Your task to perform on an android device: show emergency info Image 0: 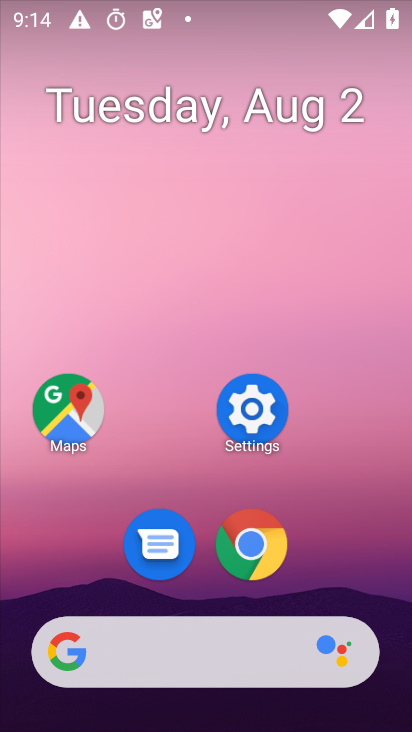
Step 0: drag from (185, 665) to (217, 600)
Your task to perform on an android device: show emergency info Image 1: 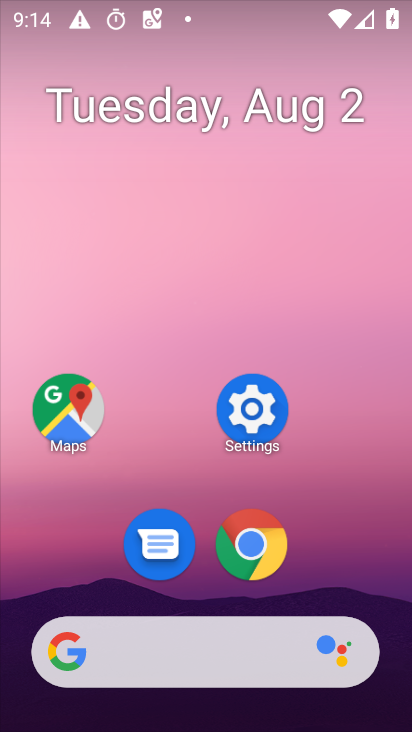
Step 1: click (246, 406)
Your task to perform on an android device: show emergency info Image 2: 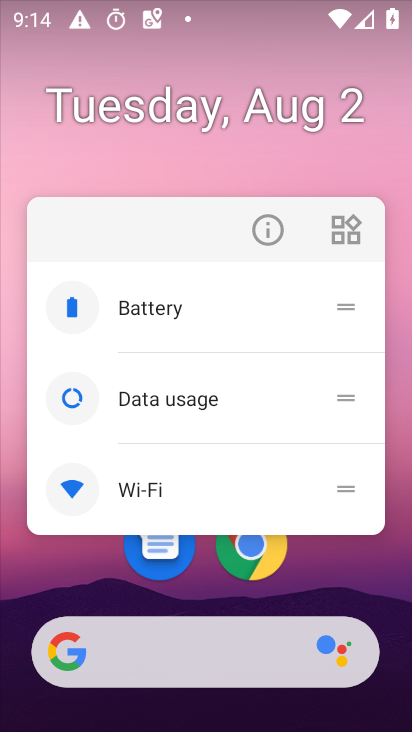
Step 2: click (356, 564)
Your task to perform on an android device: show emergency info Image 3: 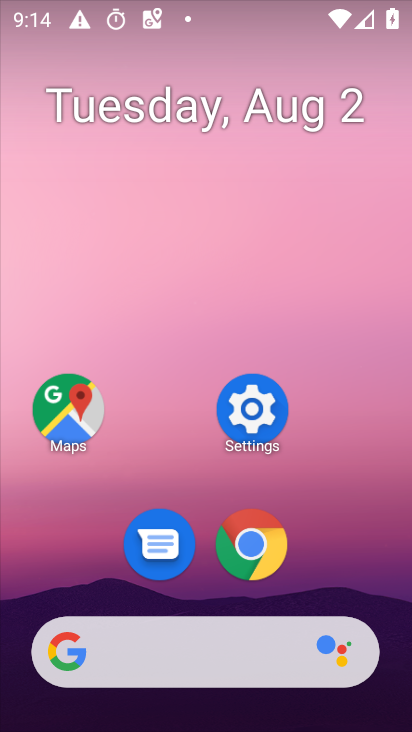
Step 3: click (254, 415)
Your task to perform on an android device: show emergency info Image 4: 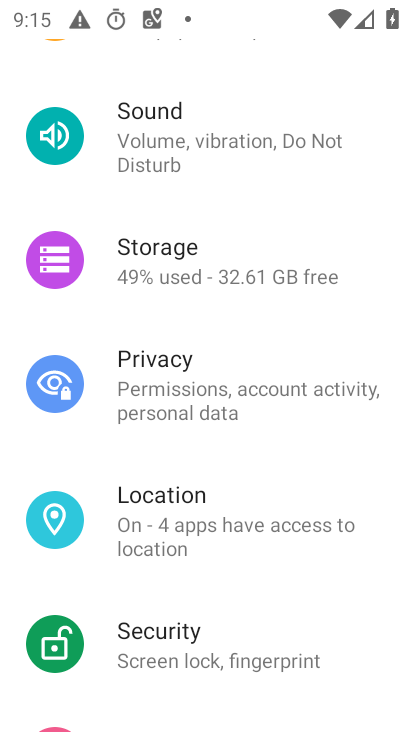
Step 4: drag from (275, 627) to (301, 68)
Your task to perform on an android device: show emergency info Image 5: 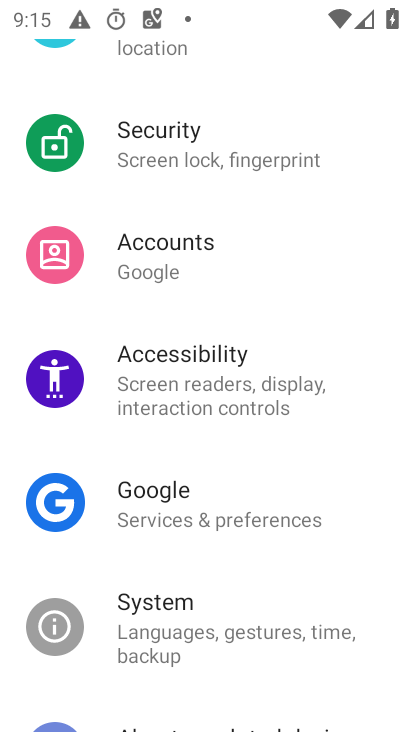
Step 5: drag from (238, 677) to (299, 209)
Your task to perform on an android device: show emergency info Image 6: 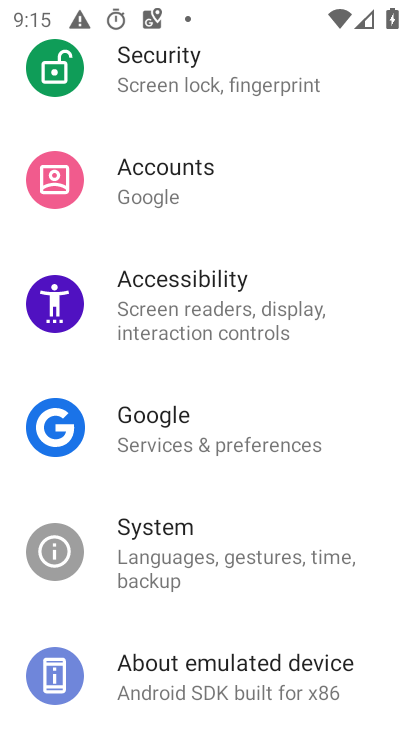
Step 6: click (184, 669)
Your task to perform on an android device: show emergency info Image 7: 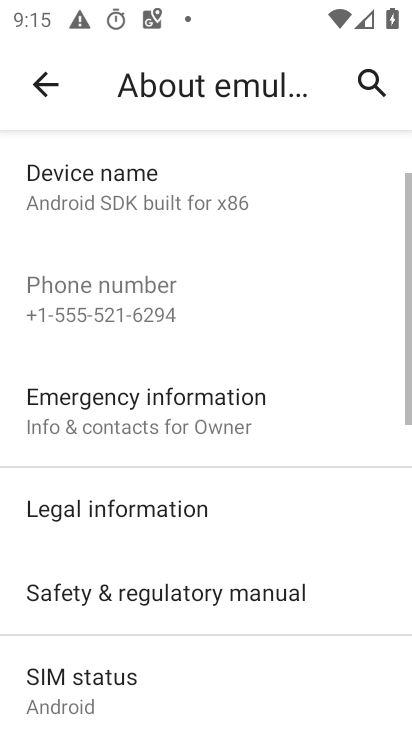
Step 7: click (139, 398)
Your task to perform on an android device: show emergency info Image 8: 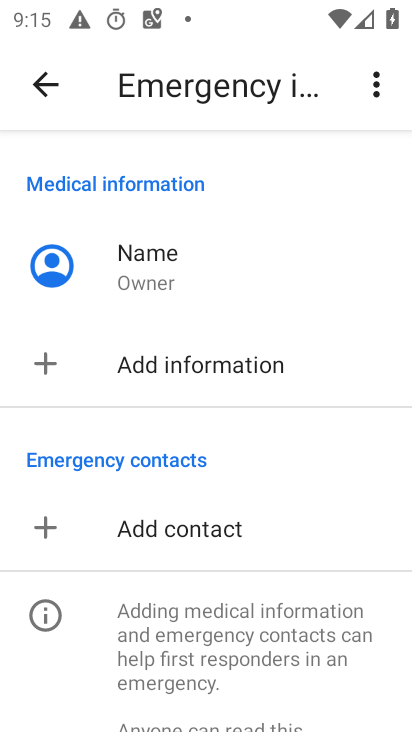
Step 8: task complete